Your task to perform on an android device: Play the last video I watched on Youtube Image 0: 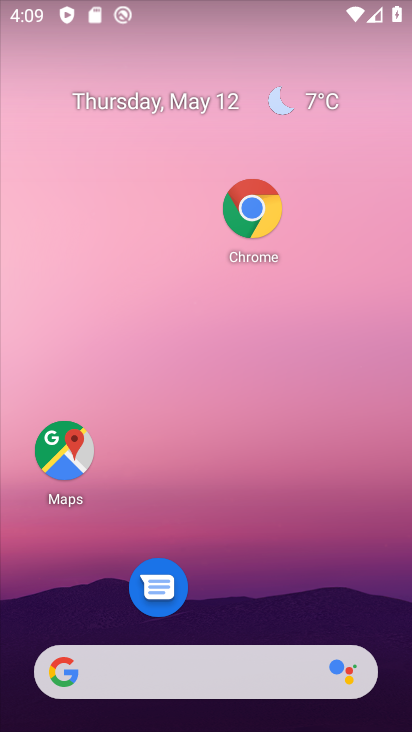
Step 0: drag from (209, 246) to (209, 133)
Your task to perform on an android device: Play the last video I watched on Youtube Image 1: 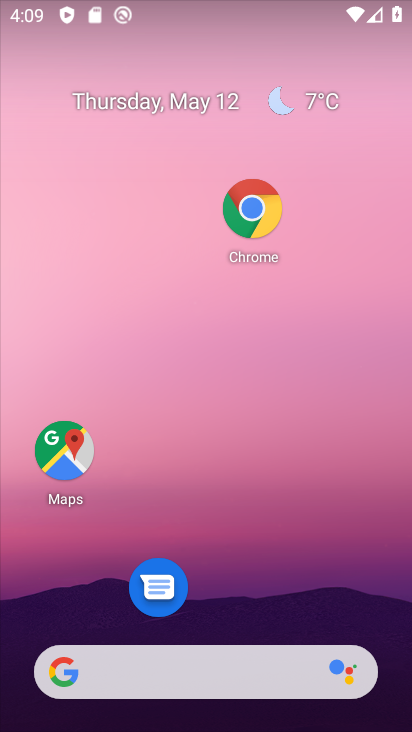
Step 1: click (235, 108)
Your task to perform on an android device: Play the last video I watched on Youtube Image 2: 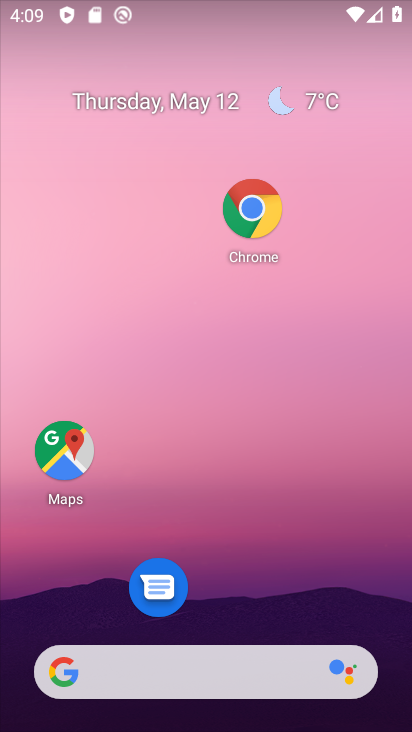
Step 2: drag from (251, 586) to (194, 141)
Your task to perform on an android device: Play the last video I watched on Youtube Image 3: 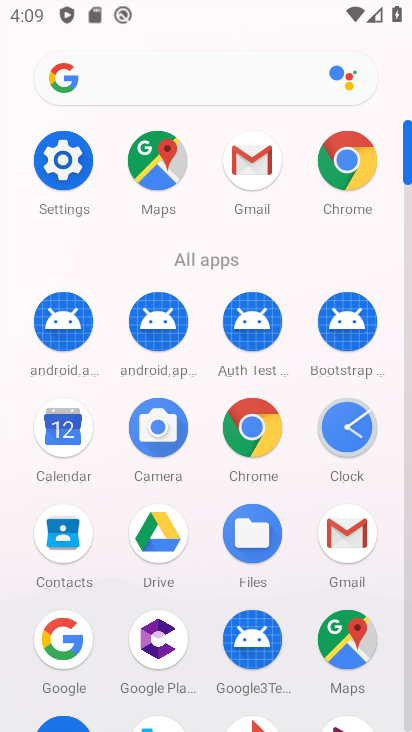
Step 3: drag from (262, 426) to (269, 339)
Your task to perform on an android device: Play the last video I watched on Youtube Image 4: 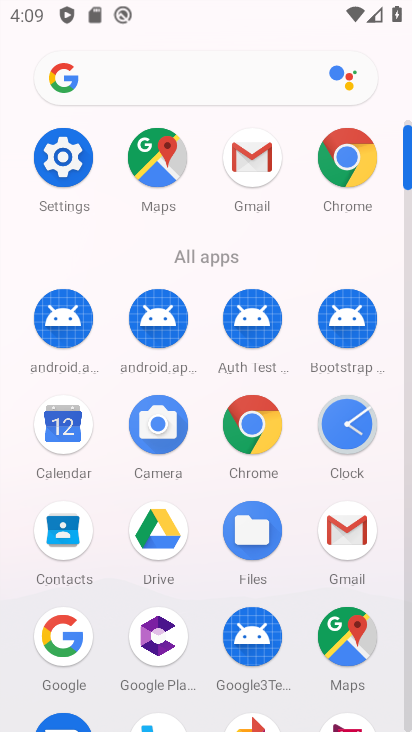
Step 4: drag from (299, 590) to (302, 279)
Your task to perform on an android device: Play the last video I watched on Youtube Image 5: 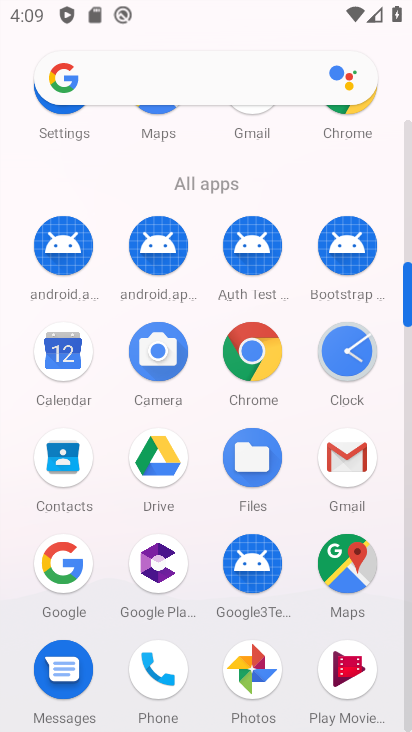
Step 5: drag from (198, 644) to (230, 351)
Your task to perform on an android device: Play the last video I watched on Youtube Image 6: 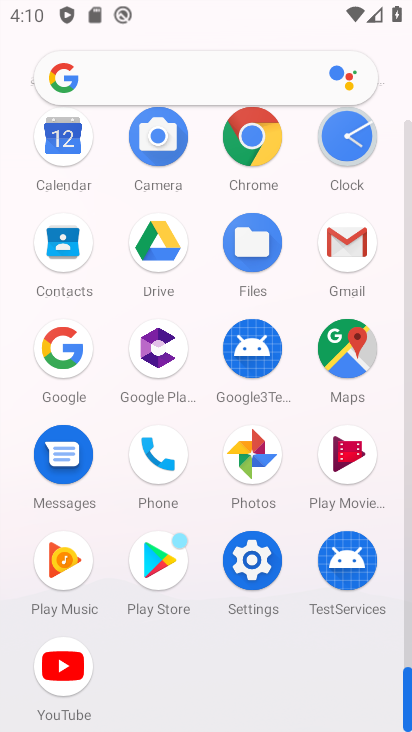
Step 6: click (61, 675)
Your task to perform on an android device: Play the last video I watched on Youtube Image 7: 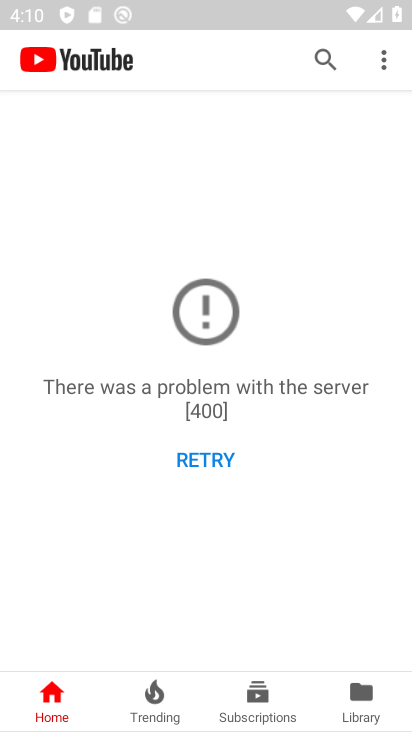
Step 7: click (368, 718)
Your task to perform on an android device: Play the last video I watched on Youtube Image 8: 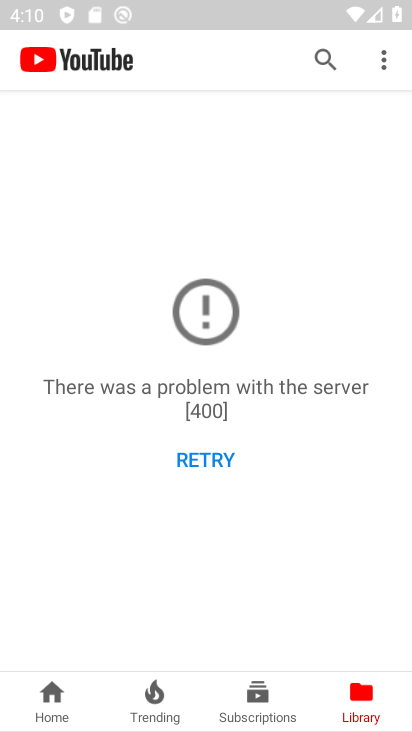
Step 8: task complete